Your task to perform on an android device: open a bookmark in the chrome app Image 0: 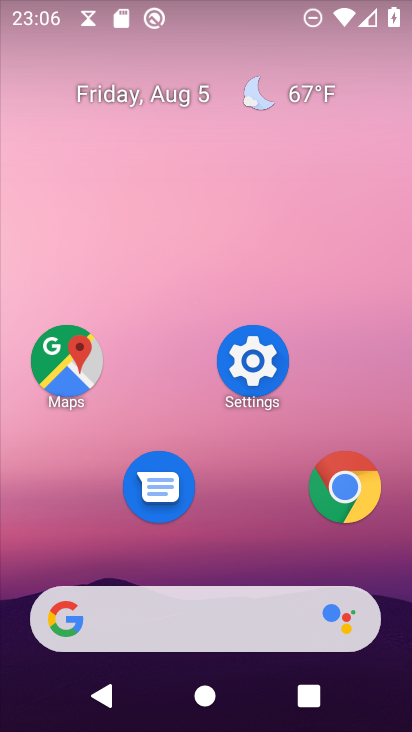
Step 0: click (346, 488)
Your task to perform on an android device: open a bookmark in the chrome app Image 1: 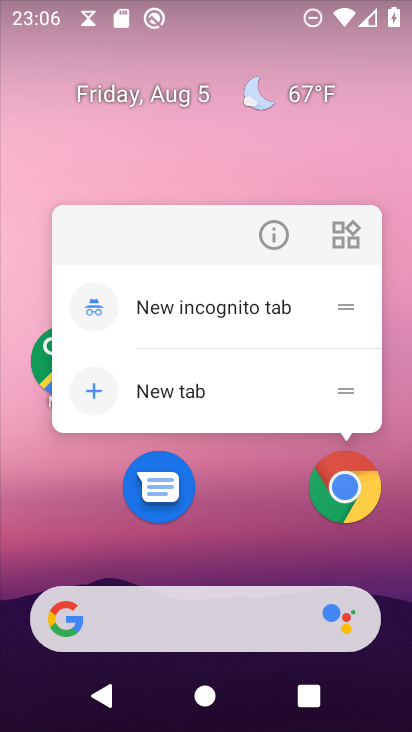
Step 1: click (346, 491)
Your task to perform on an android device: open a bookmark in the chrome app Image 2: 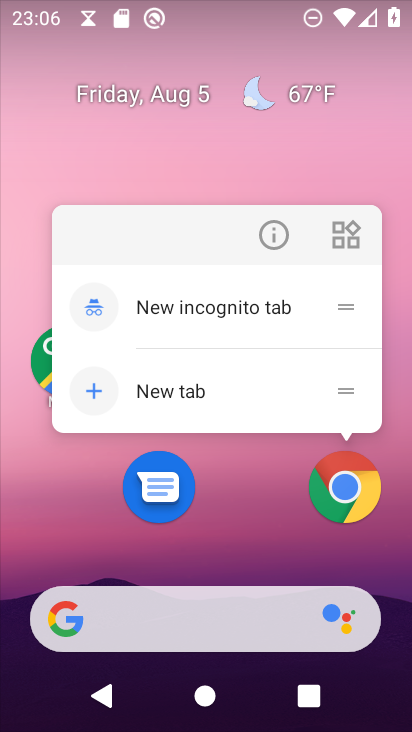
Step 2: click (346, 497)
Your task to perform on an android device: open a bookmark in the chrome app Image 3: 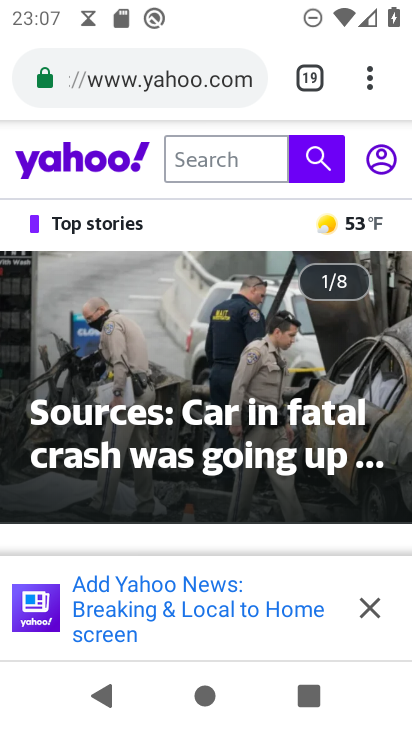
Step 3: drag from (368, 88) to (162, 291)
Your task to perform on an android device: open a bookmark in the chrome app Image 4: 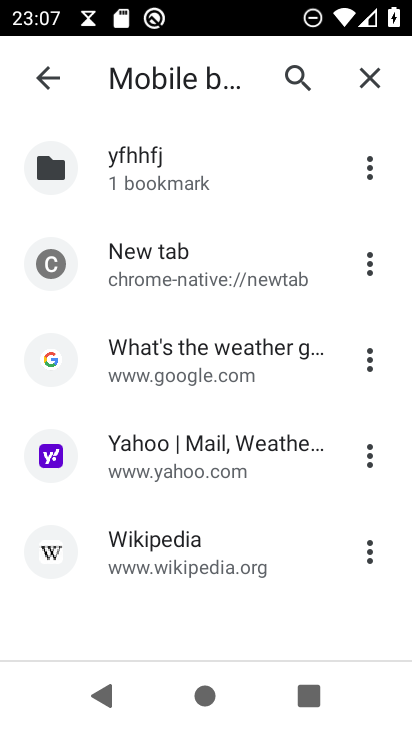
Step 4: click (234, 277)
Your task to perform on an android device: open a bookmark in the chrome app Image 5: 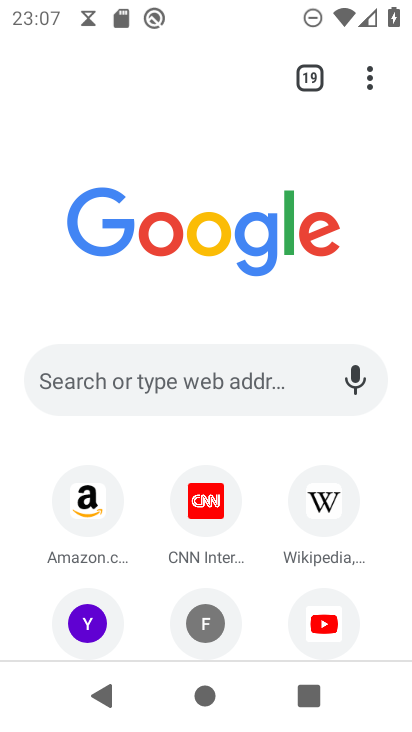
Step 5: task complete